Your task to perform on an android device: open app "HBO Max: Stream TV & Movies" (install if not already installed) and go to login screen Image 0: 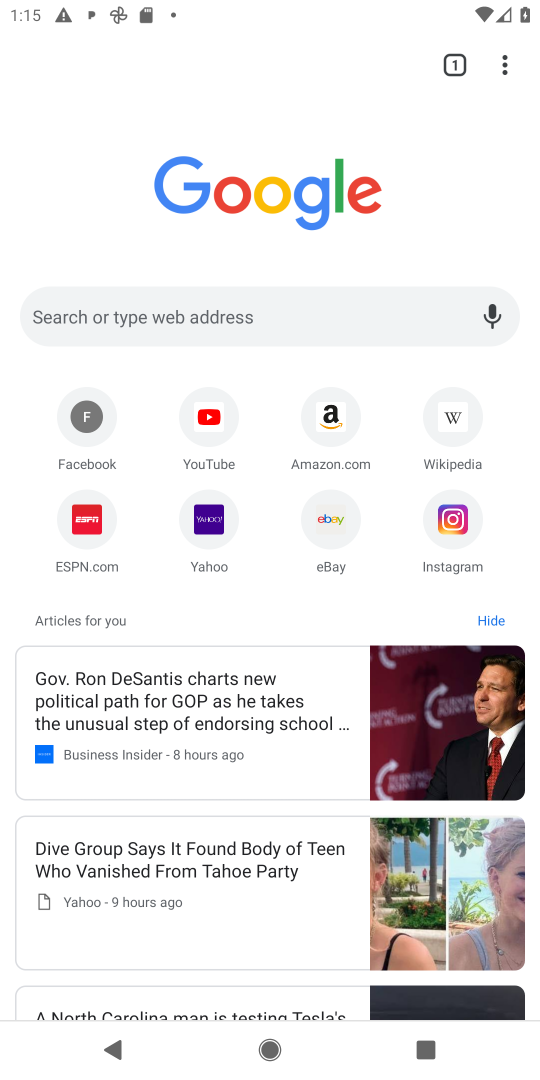
Step 0: press home button
Your task to perform on an android device: open app "HBO Max: Stream TV & Movies" (install if not already installed) and go to login screen Image 1: 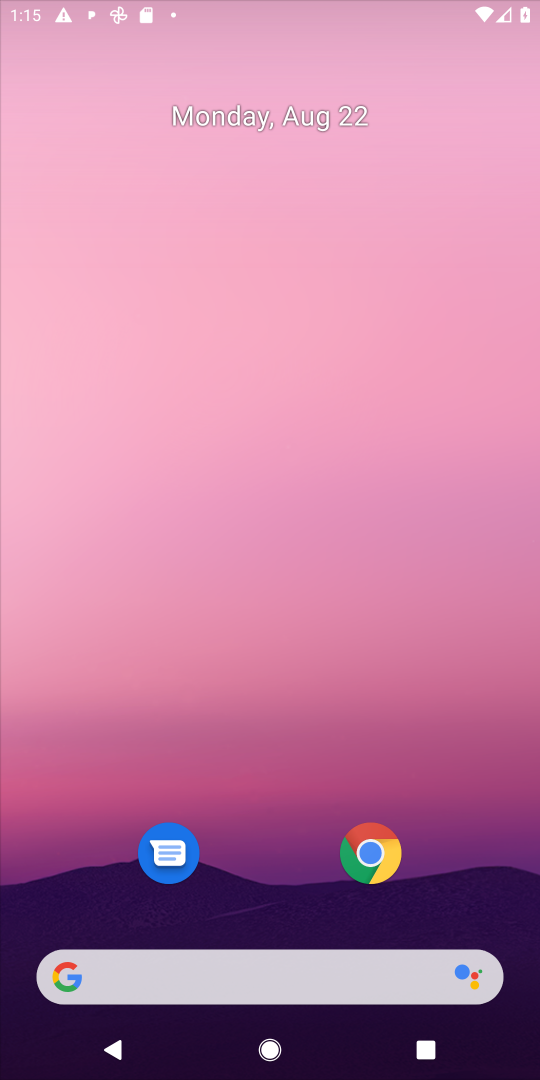
Step 1: drag from (266, 978) to (295, 542)
Your task to perform on an android device: open app "HBO Max: Stream TV & Movies" (install if not already installed) and go to login screen Image 2: 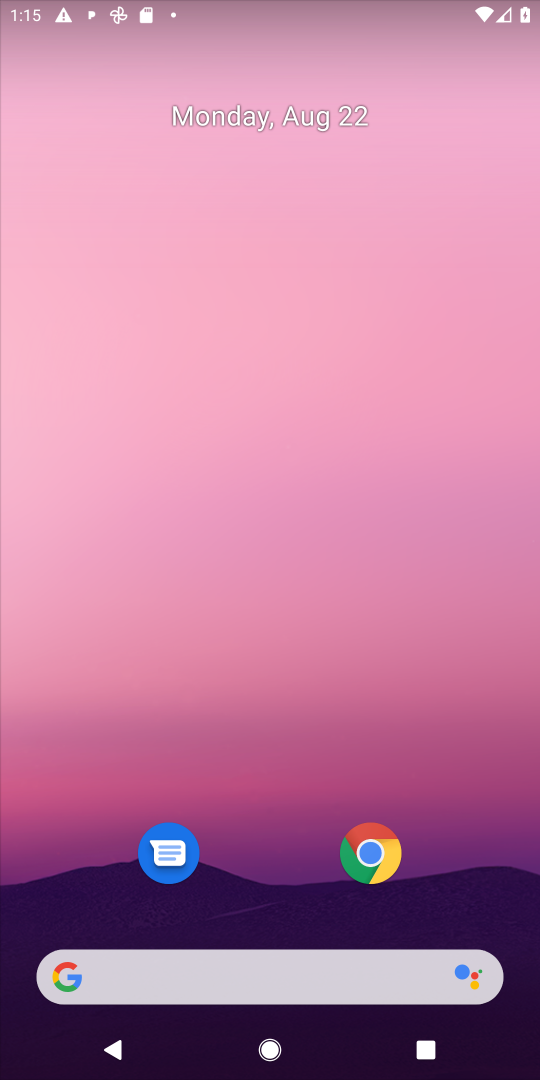
Step 2: drag from (235, 851) to (297, 348)
Your task to perform on an android device: open app "HBO Max: Stream TV & Movies" (install if not already installed) and go to login screen Image 3: 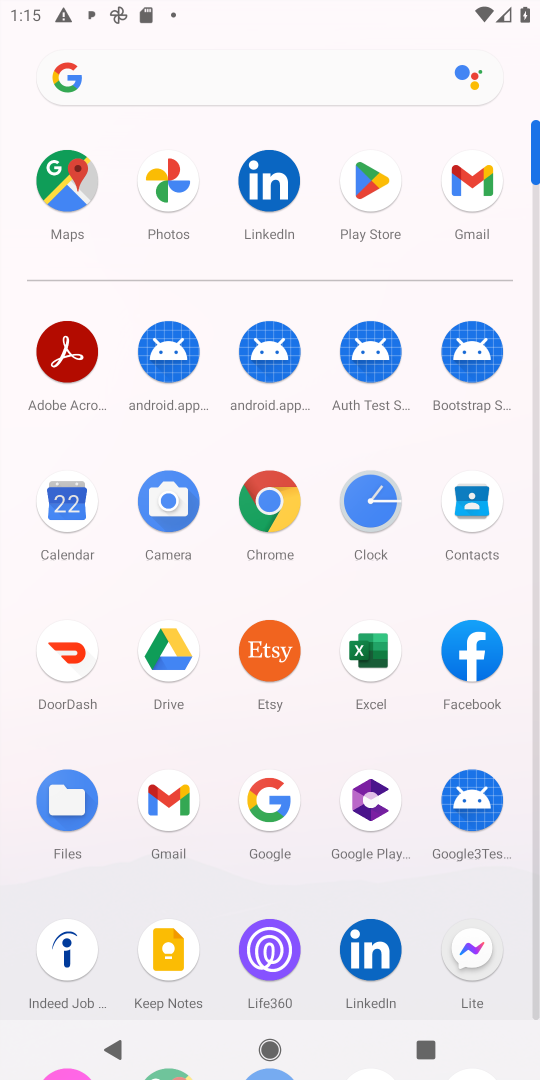
Step 3: click (367, 158)
Your task to perform on an android device: open app "HBO Max: Stream TV & Movies" (install if not already installed) and go to login screen Image 4: 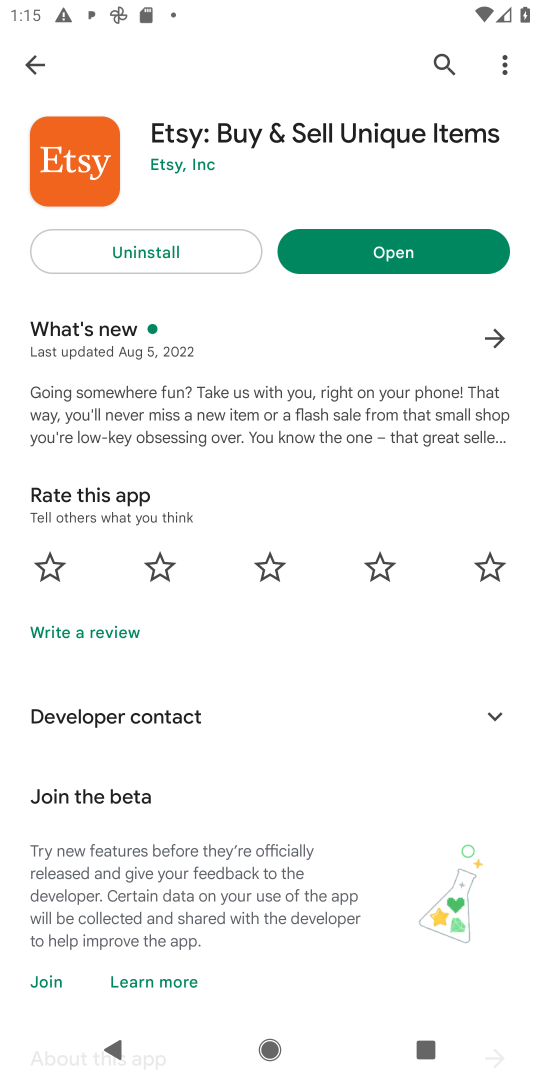
Step 4: click (37, 55)
Your task to perform on an android device: open app "HBO Max: Stream TV & Movies" (install if not already installed) and go to login screen Image 5: 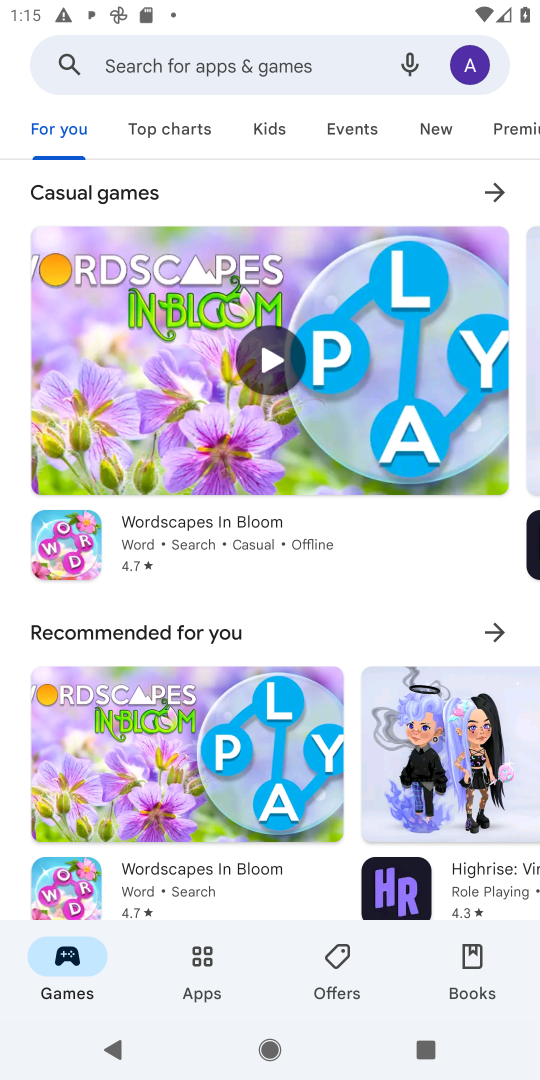
Step 5: click (163, 55)
Your task to perform on an android device: open app "HBO Max: Stream TV & Movies" (install if not already installed) and go to login screen Image 6: 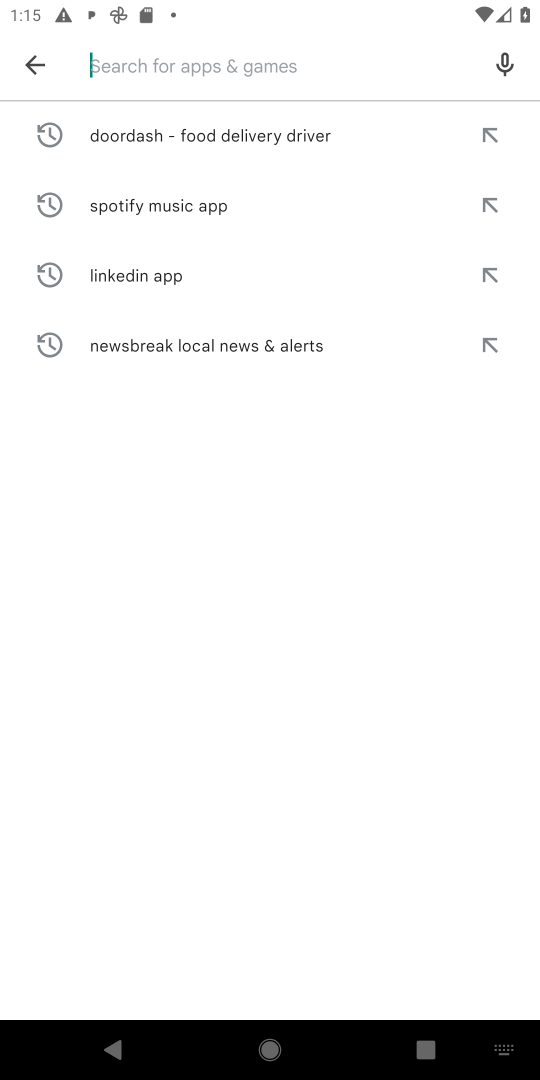
Step 6: type "HBO Max: Stream TV & Movies "
Your task to perform on an android device: open app "HBO Max: Stream TV & Movies" (install if not already installed) and go to login screen Image 7: 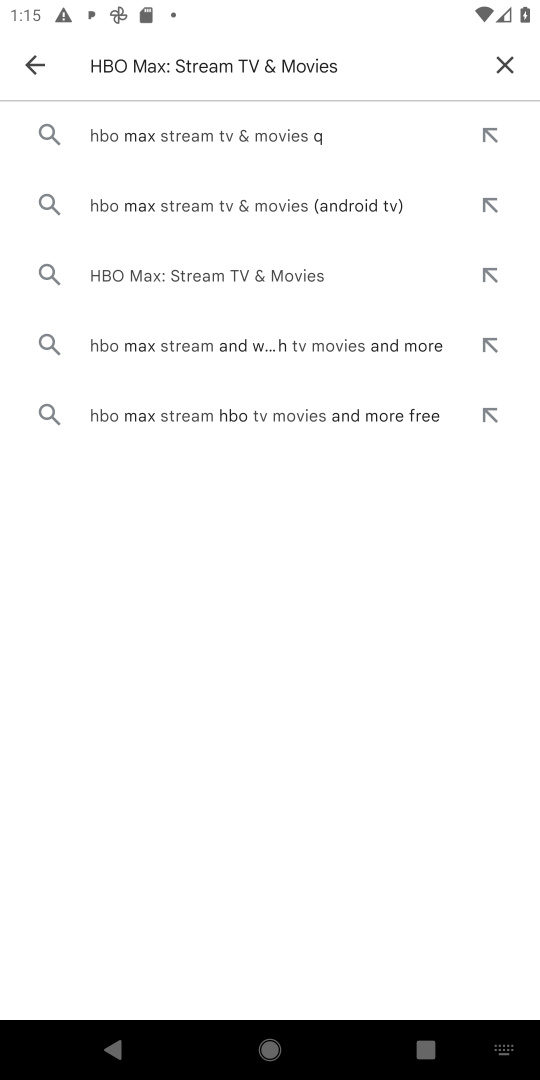
Step 7: click (207, 142)
Your task to perform on an android device: open app "HBO Max: Stream TV & Movies" (install if not already installed) and go to login screen Image 8: 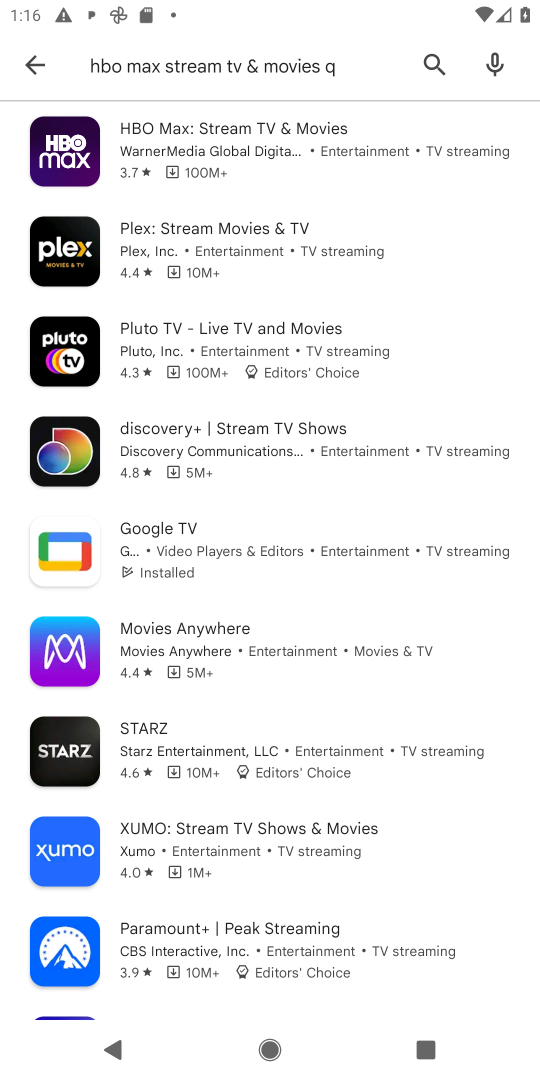
Step 8: click (169, 122)
Your task to perform on an android device: open app "HBO Max: Stream TV & Movies" (install if not already installed) and go to login screen Image 9: 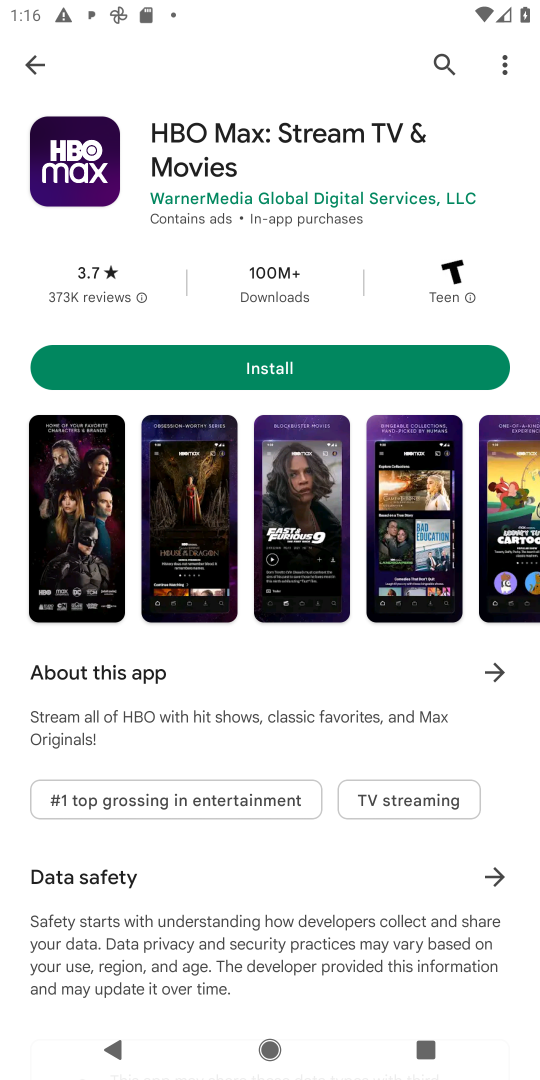
Step 9: click (289, 351)
Your task to perform on an android device: open app "HBO Max: Stream TV & Movies" (install if not already installed) and go to login screen Image 10: 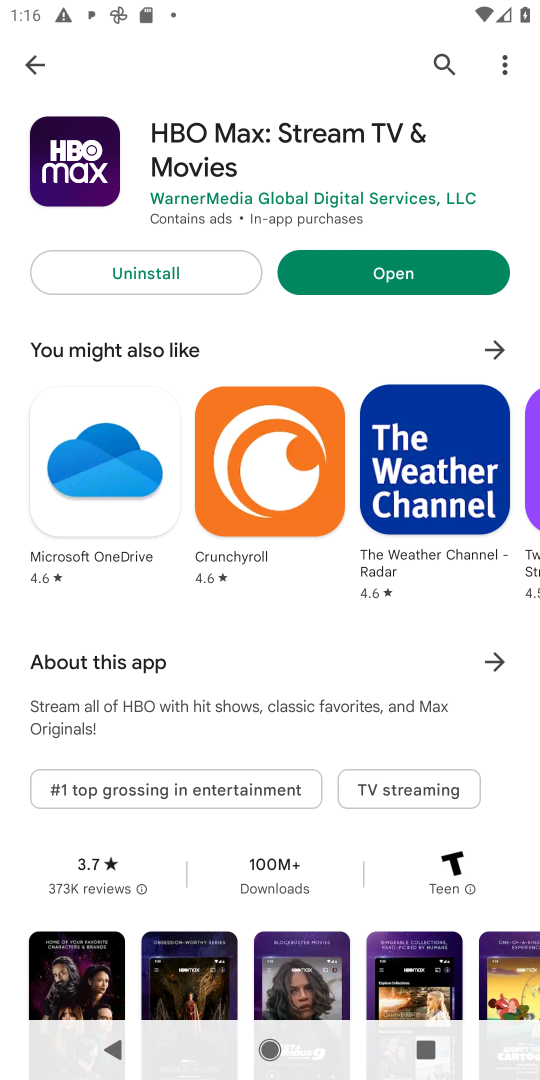
Step 10: click (331, 248)
Your task to perform on an android device: open app "HBO Max: Stream TV & Movies" (install if not already installed) and go to login screen Image 11: 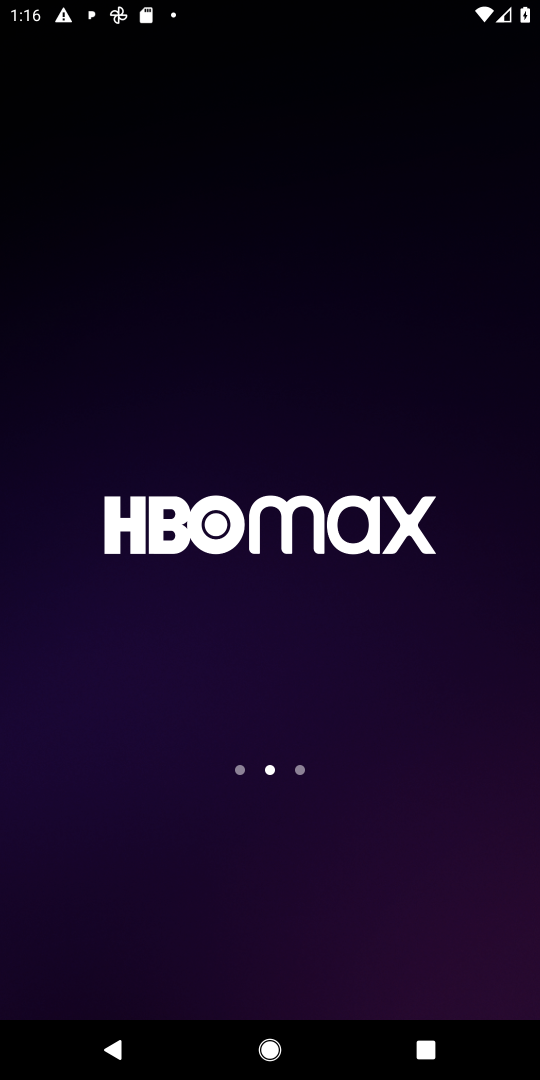
Step 11: task complete